Your task to perform on an android device: snooze an email in the gmail app Image 0: 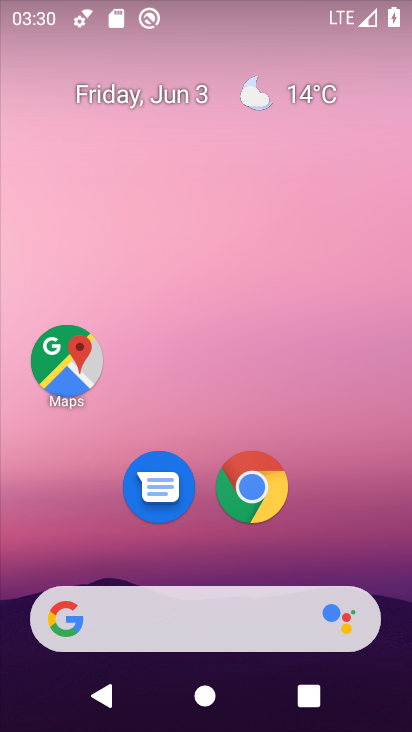
Step 0: drag from (294, 300) to (179, 35)
Your task to perform on an android device: snooze an email in the gmail app Image 1: 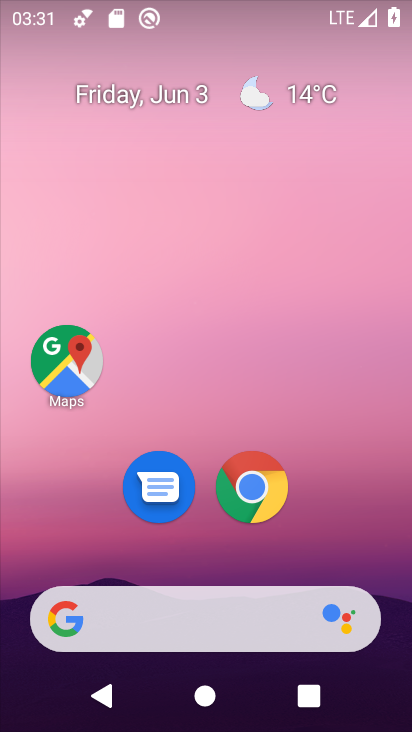
Step 1: drag from (336, 486) to (235, 40)
Your task to perform on an android device: snooze an email in the gmail app Image 2: 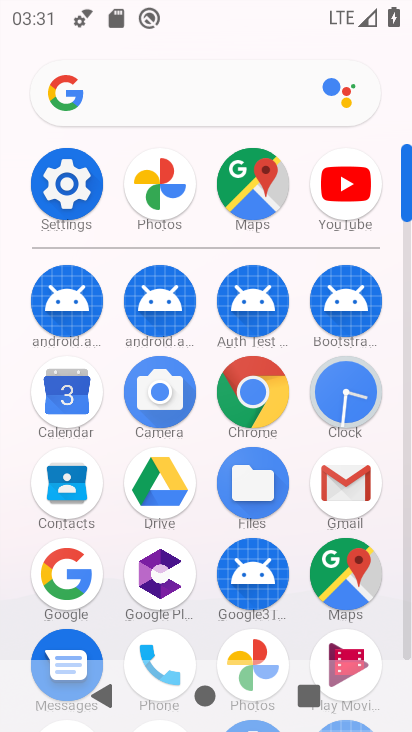
Step 2: click (345, 473)
Your task to perform on an android device: snooze an email in the gmail app Image 3: 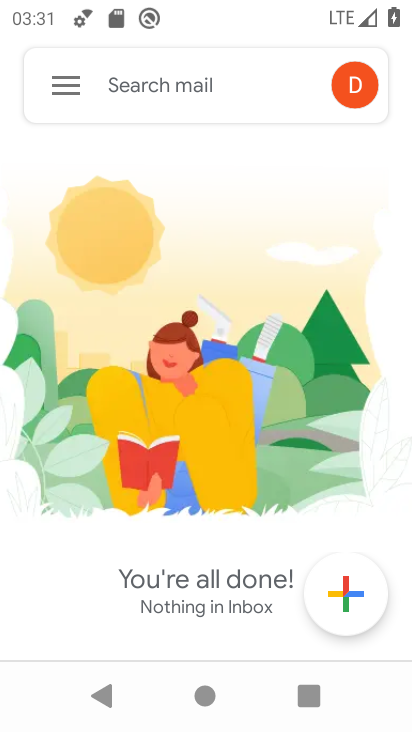
Step 3: click (66, 85)
Your task to perform on an android device: snooze an email in the gmail app Image 4: 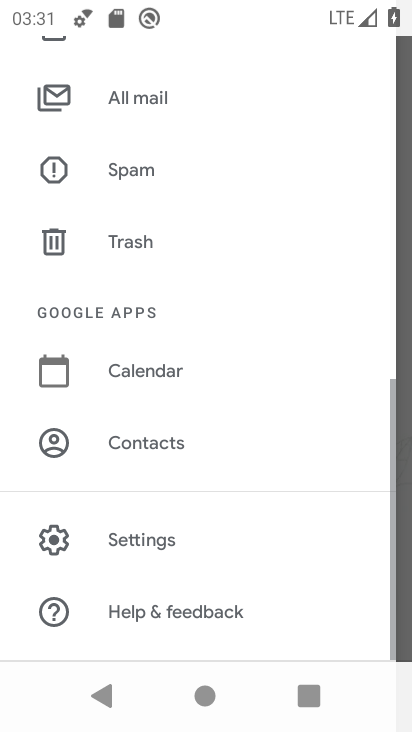
Step 4: task complete